Your task to perform on an android device: open a bookmark in the chrome app Image 0: 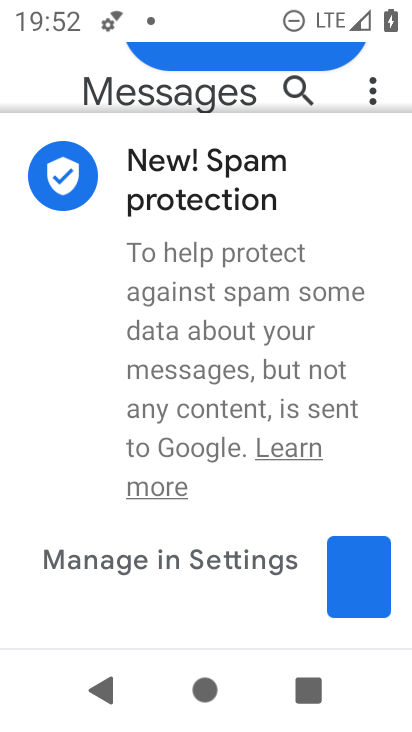
Step 0: press home button
Your task to perform on an android device: open a bookmark in the chrome app Image 1: 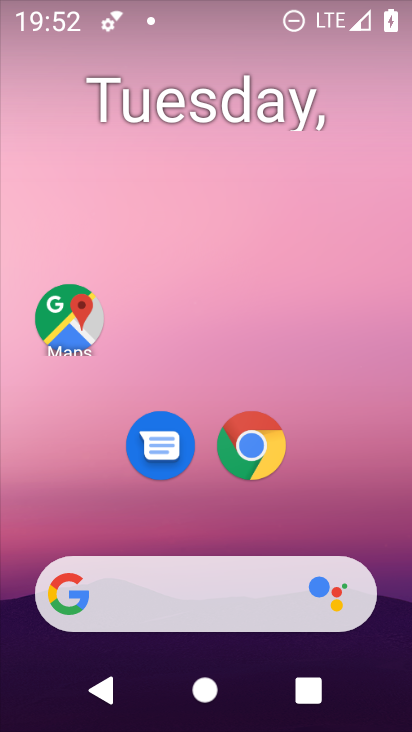
Step 1: click (250, 471)
Your task to perform on an android device: open a bookmark in the chrome app Image 2: 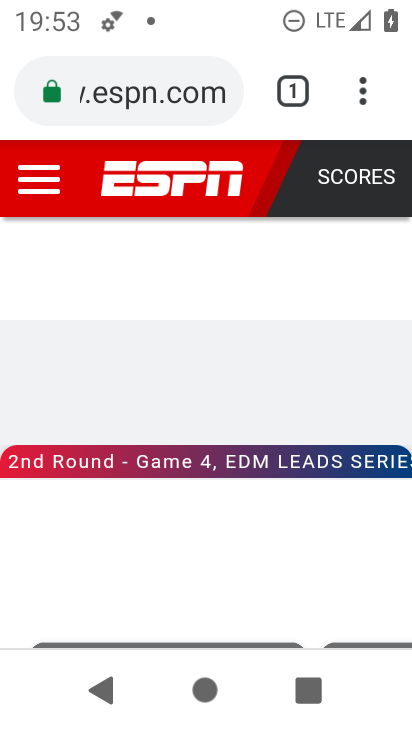
Step 2: click (359, 87)
Your task to perform on an android device: open a bookmark in the chrome app Image 3: 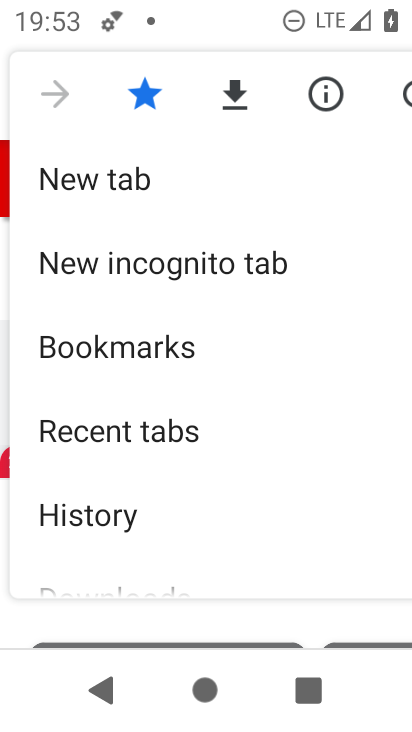
Step 3: click (88, 358)
Your task to perform on an android device: open a bookmark in the chrome app Image 4: 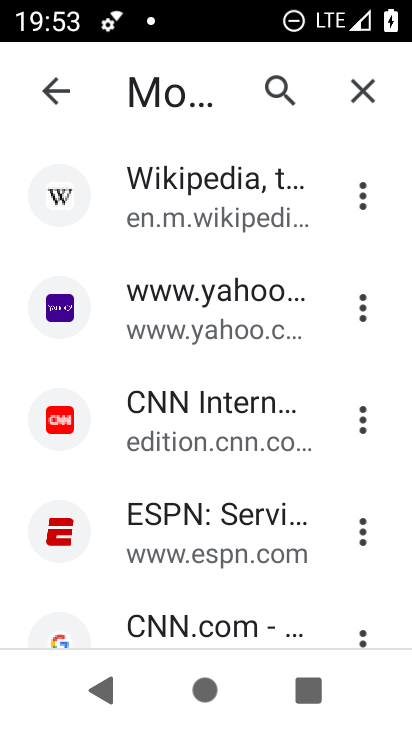
Step 4: click (111, 335)
Your task to perform on an android device: open a bookmark in the chrome app Image 5: 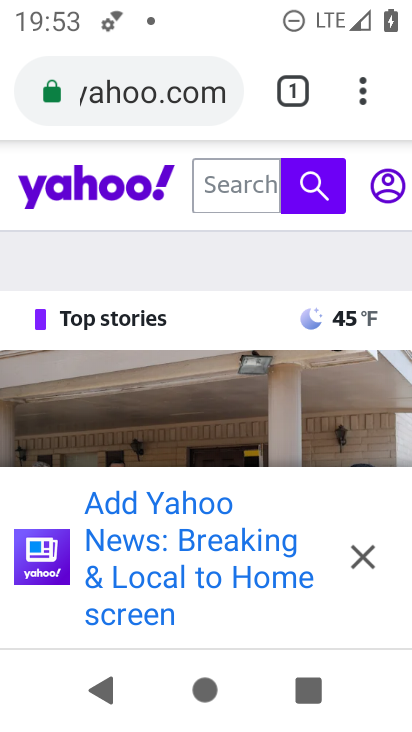
Step 5: task complete